Your task to perform on an android device: Add razer blade to the cart on bestbuy Image 0: 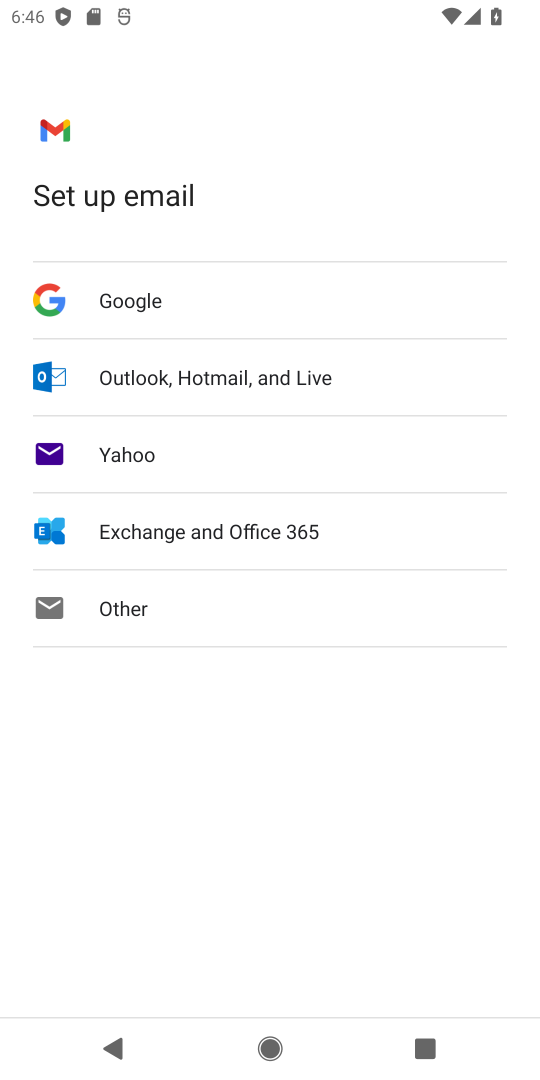
Step 0: press home button
Your task to perform on an android device: Add razer blade to the cart on bestbuy Image 1: 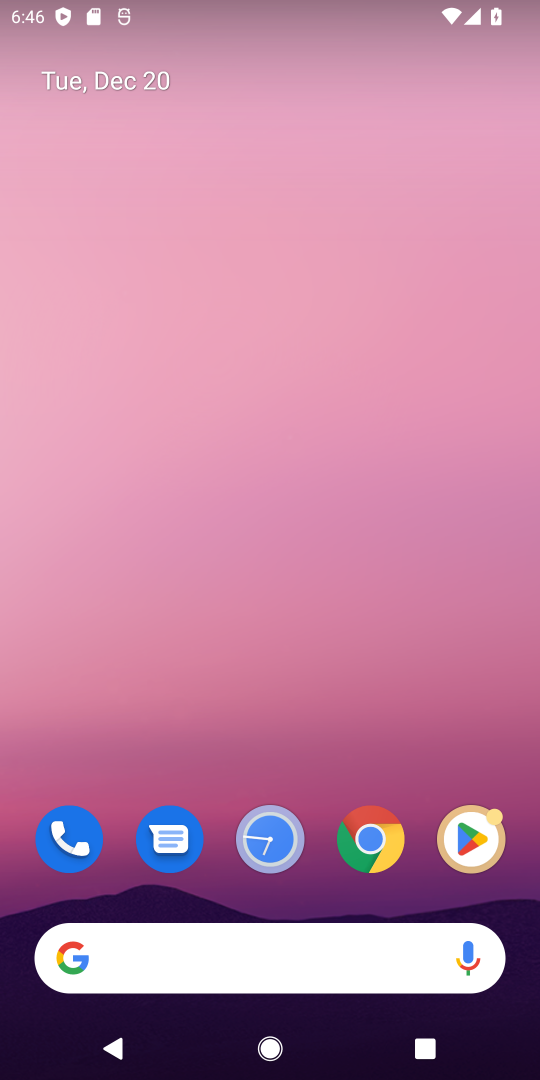
Step 1: click (222, 955)
Your task to perform on an android device: Add razer blade to the cart on bestbuy Image 2: 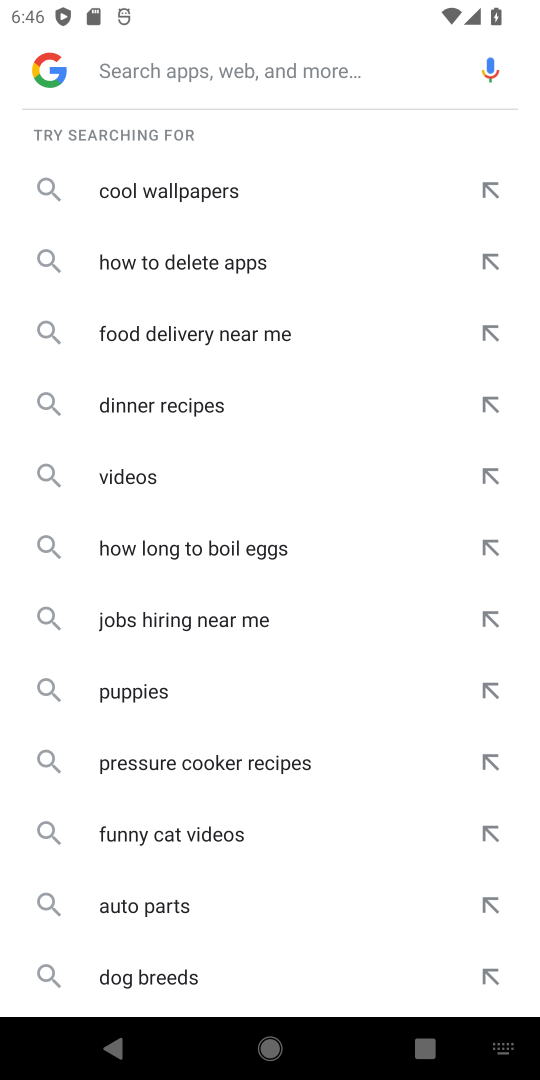
Step 2: type "bestbuy"
Your task to perform on an android device: Add razer blade to the cart on bestbuy Image 3: 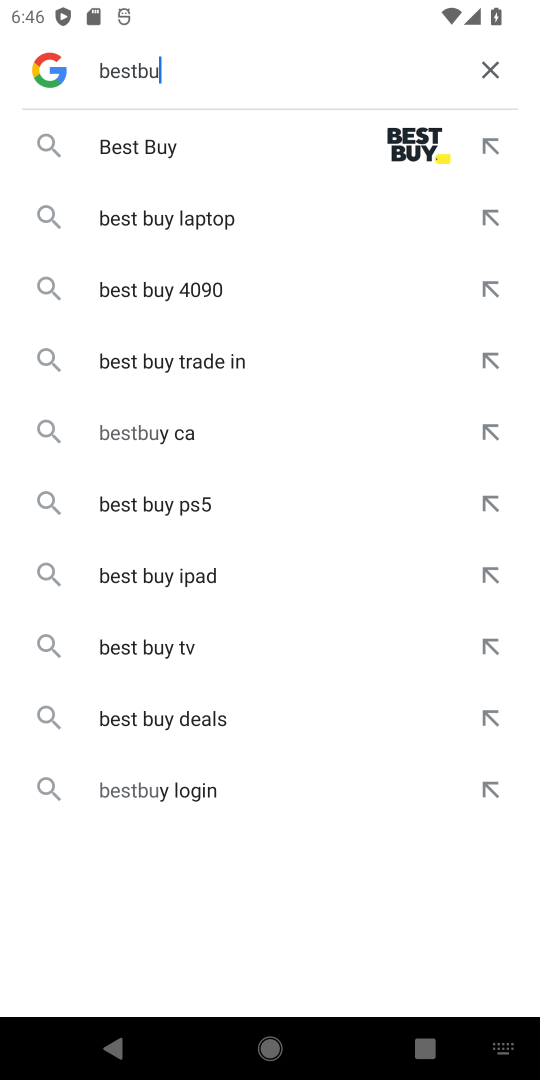
Step 3: type ""
Your task to perform on an android device: Add razer blade to the cart on bestbuy Image 4: 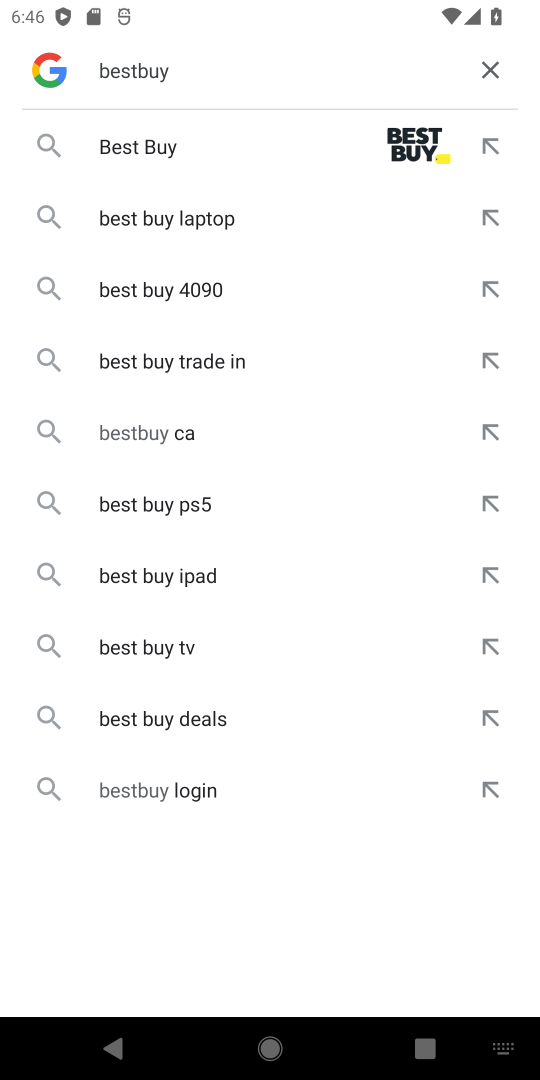
Step 4: click (168, 153)
Your task to perform on an android device: Add razer blade to the cart on bestbuy Image 5: 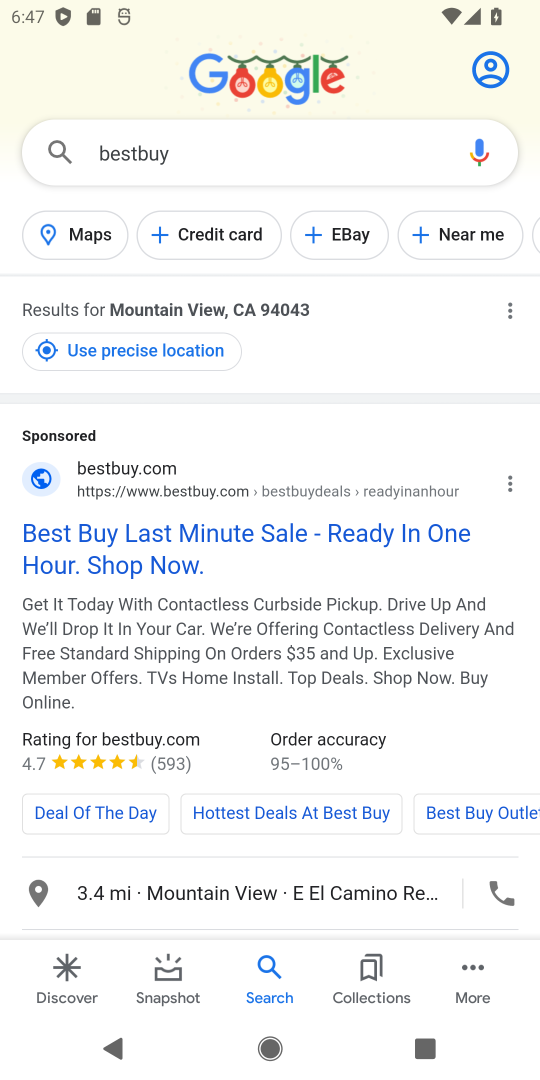
Step 5: click (92, 520)
Your task to perform on an android device: Add razer blade to the cart on bestbuy Image 6: 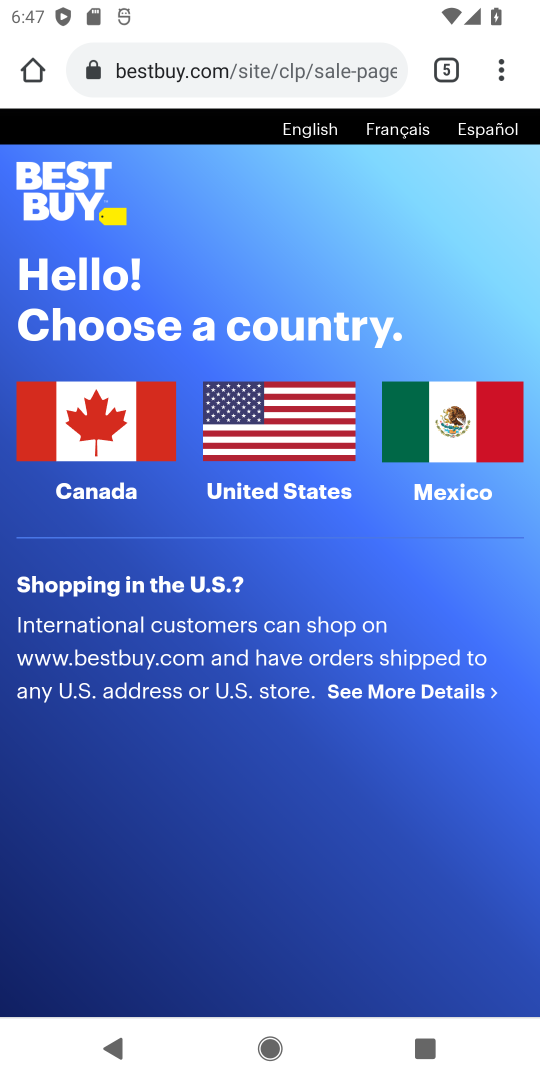
Step 6: click (247, 415)
Your task to perform on an android device: Add razer blade to the cart on bestbuy Image 7: 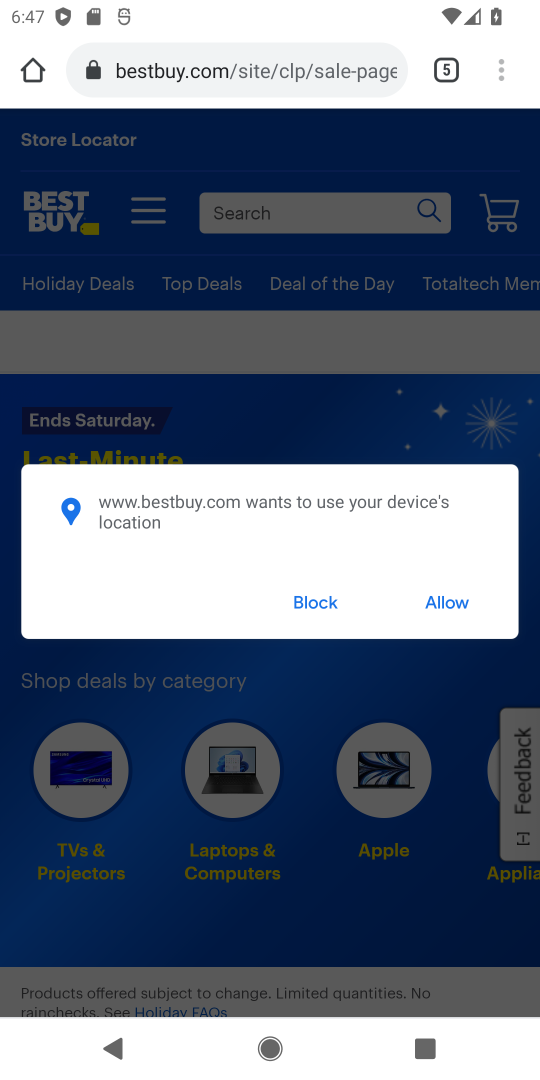
Step 7: click (316, 613)
Your task to perform on an android device: Add razer blade to the cart on bestbuy Image 8: 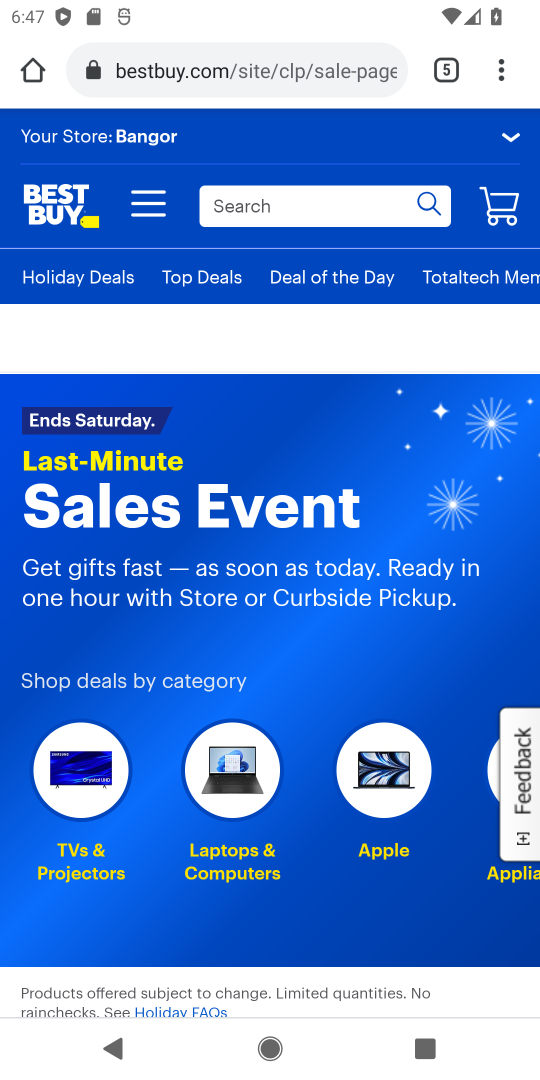
Step 8: click (246, 213)
Your task to perform on an android device: Add razer blade to the cart on bestbuy Image 9: 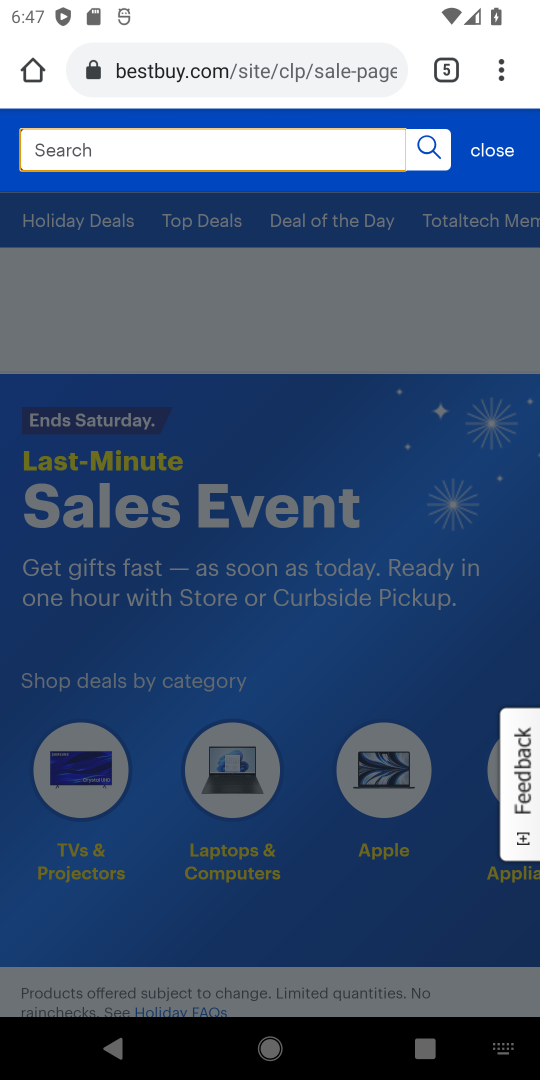
Step 9: type "razer blade"
Your task to perform on an android device: Add razer blade to the cart on bestbuy Image 10: 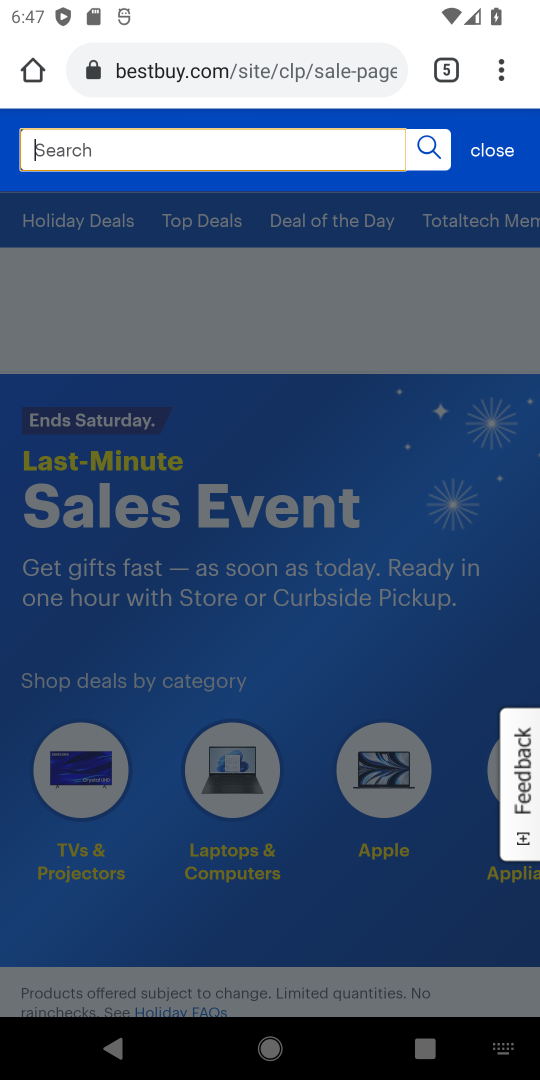
Step 10: type ""
Your task to perform on an android device: Add razer blade to the cart on bestbuy Image 11: 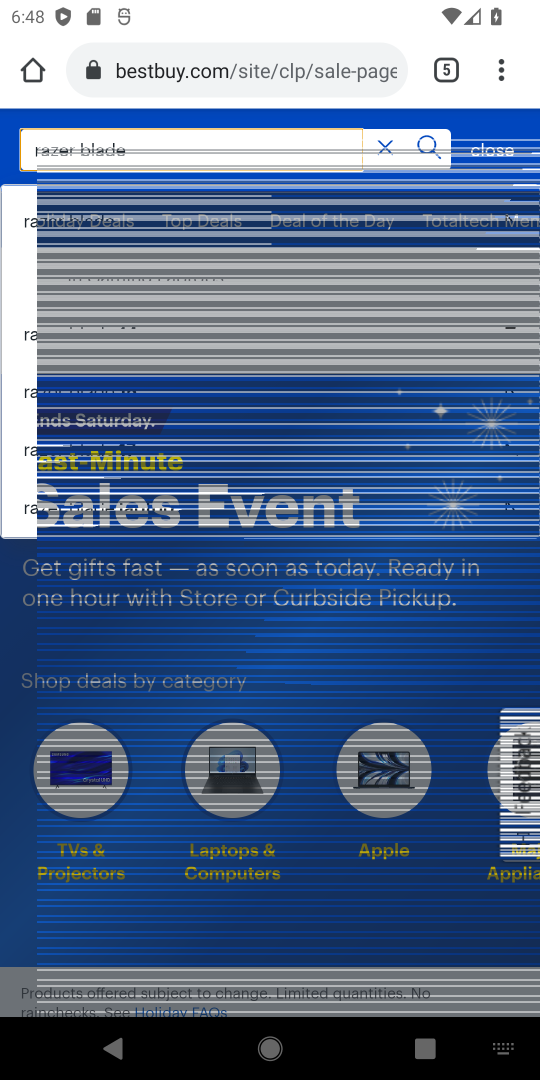
Step 11: click (100, 217)
Your task to perform on an android device: Add razer blade to the cart on bestbuy Image 12: 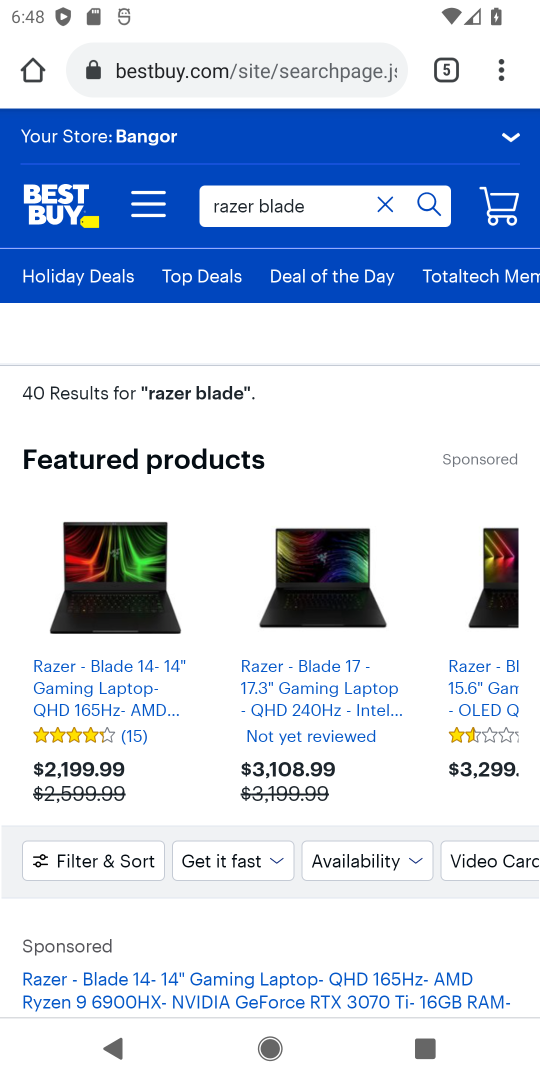
Step 12: drag from (151, 893) to (120, 440)
Your task to perform on an android device: Add razer blade to the cart on bestbuy Image 13: 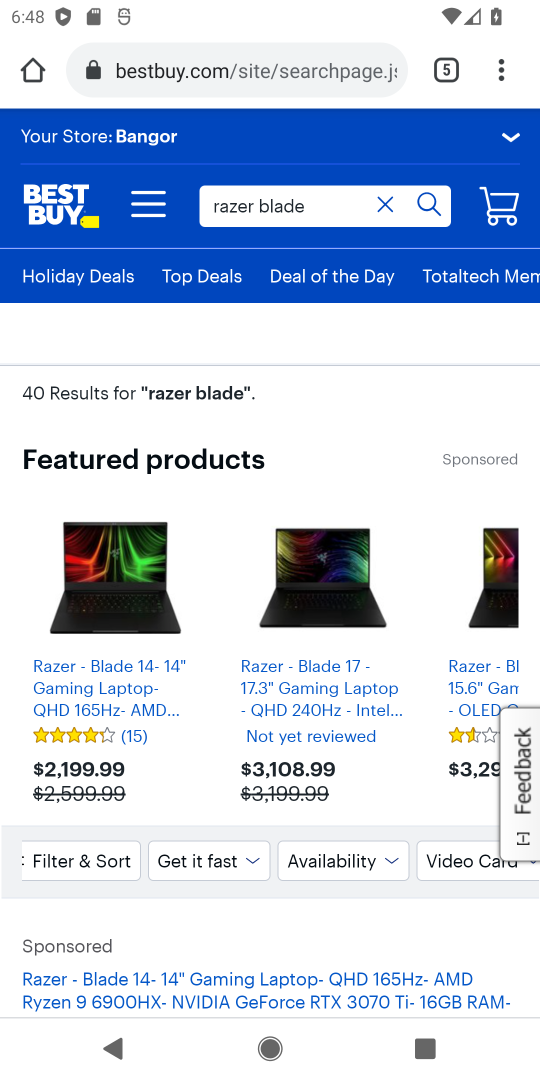
Step 13: drag from (377, 797) to (413, 361)
Your task to perform on an android device: Add razer blade to the cart on bestbuy Image 14: 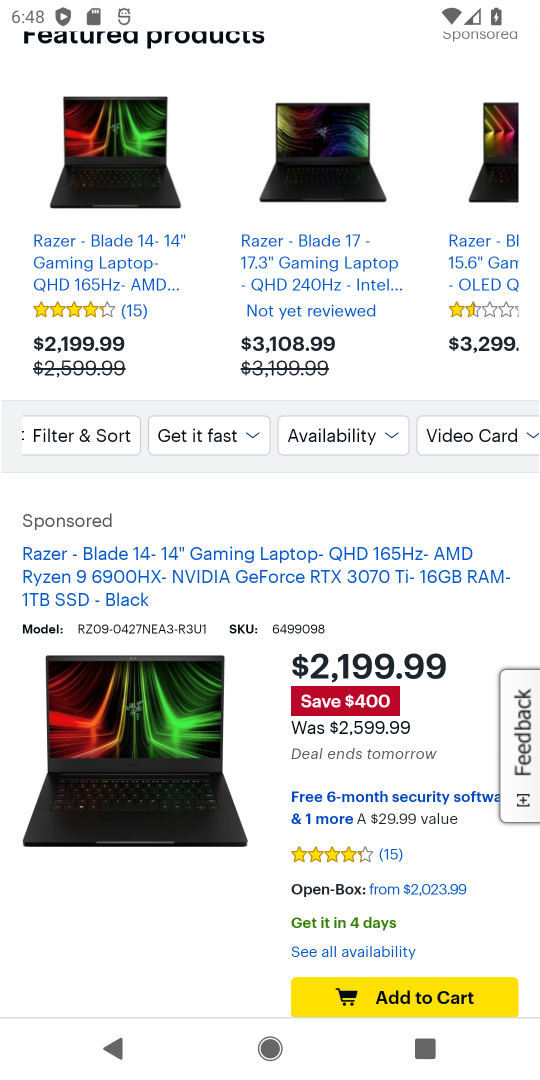
Step 14: drag from (222, 909) to (325, 275)
Your task to perform on an android device: Add razer blade to the cart on bestbuy Image 15: 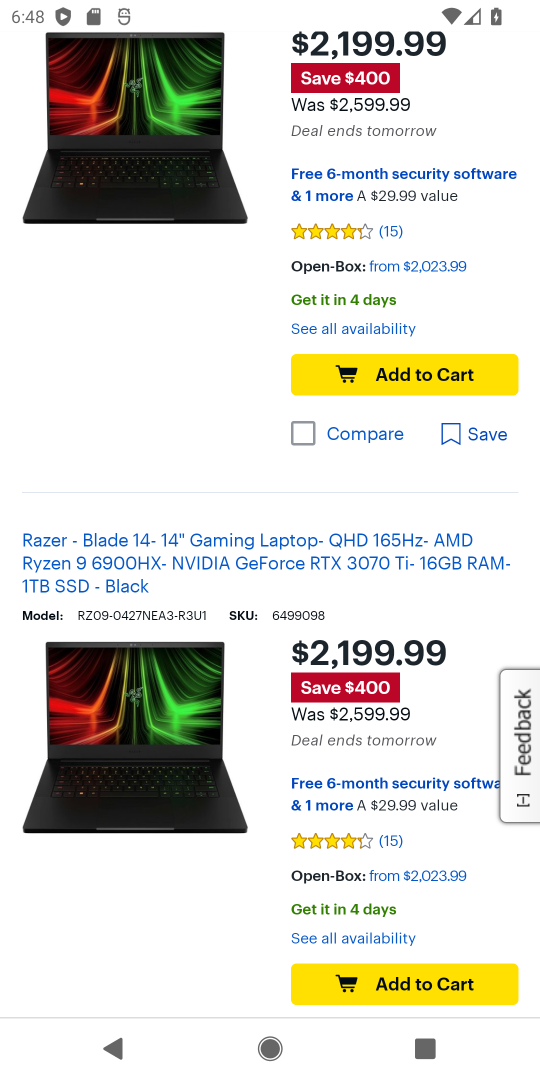
Step 15: click (402, 380)
Your task to perform on an android device: Add razer blade to the cart on bestbuy Image 16: 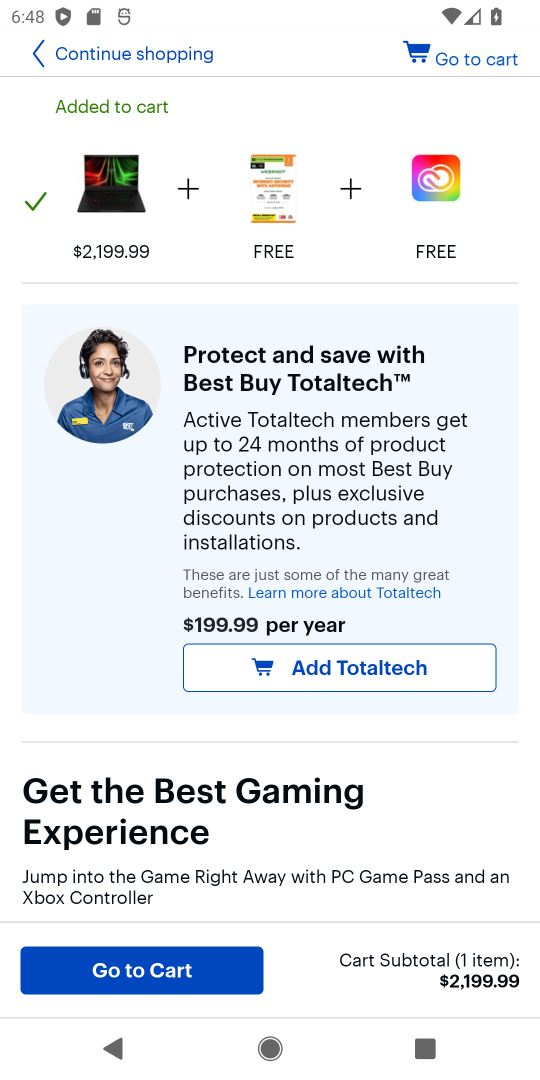
Step 16: task complete